Your task to perform on an android device: Open accessibility settings Image 0: 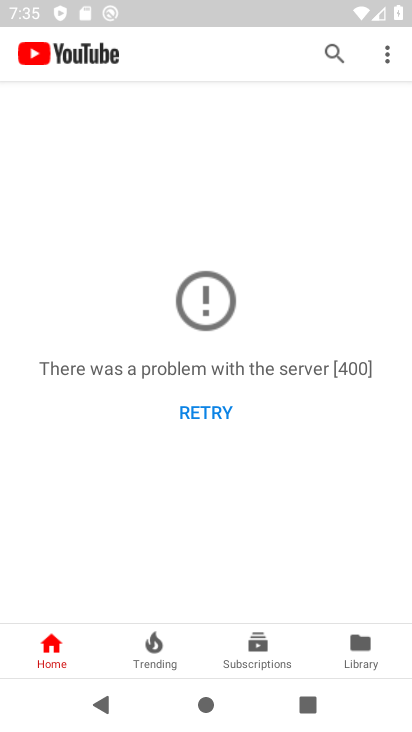
Step 0: press home button
Your task to perform on an android device: Open accessibility settings Image 1: 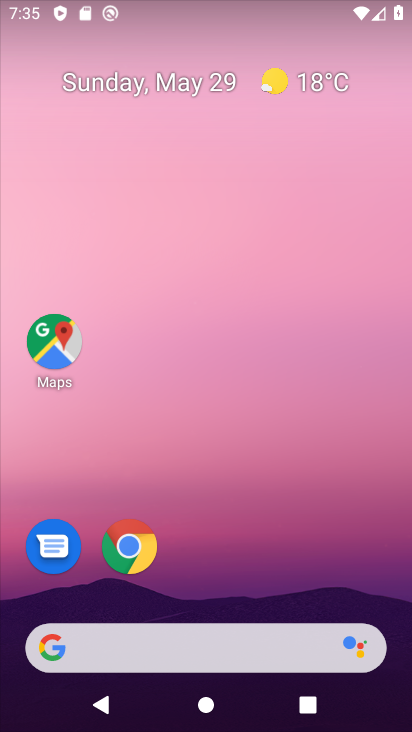
Step 1: drag from (144, 634) to (314, 149)
Your task to perform on an android device: Open accessibility settings Image 2: 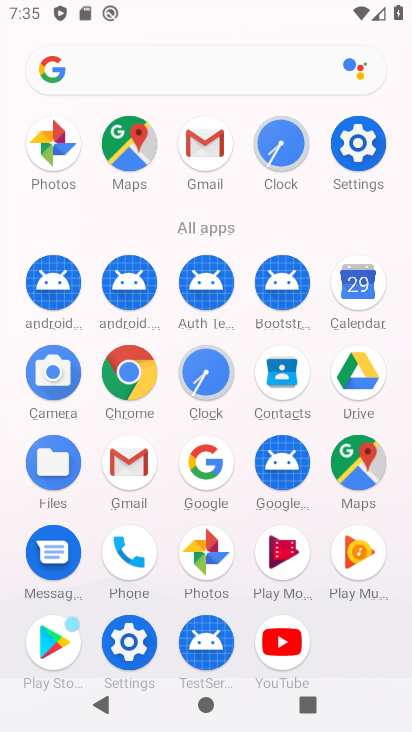
Step 2: click (133, 648)
Your task to perform on an android device: Open accessibility settings Image 3: 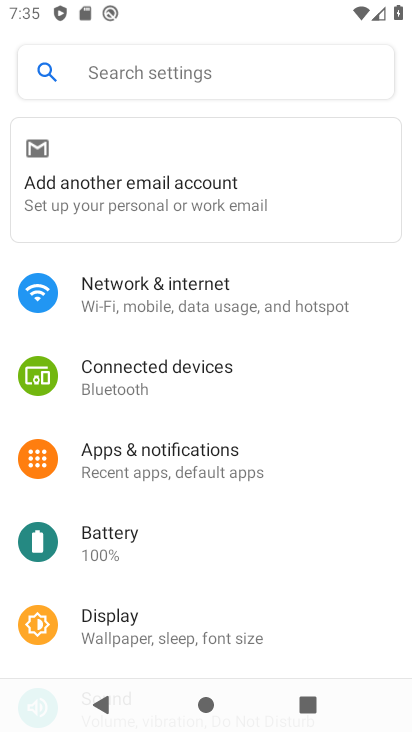
Step 3: drag from (288, 675) to (410, 288)
Your task to perform on an android device: Open accessibility settings Image 4: 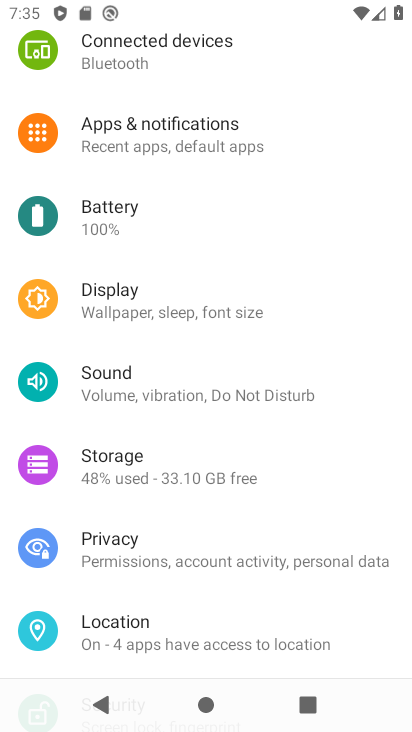
Step 4: drag from (166, 623) to (308, 221)
Your task to perform on an android device: Open accessibility settings Image 5: 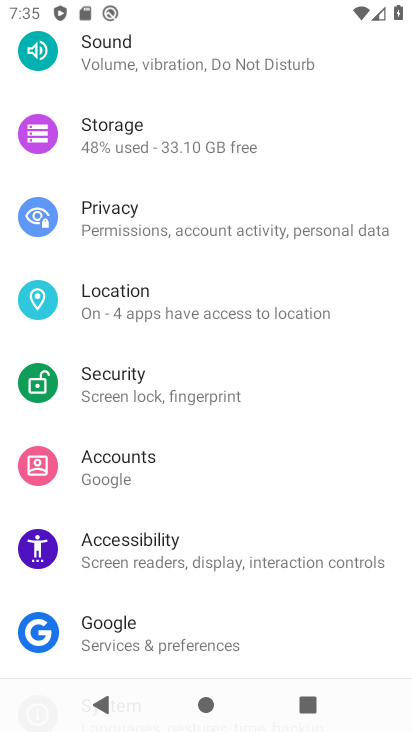
Step 5: drag from (166, 576) to (252, 291)
Your task to perform on an android device: Open accessibility settings Image 6: 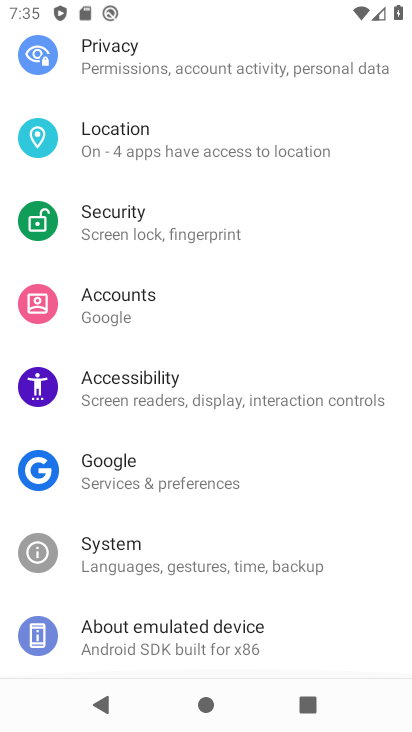
Step 6: click (180, 377)
Your task to perform on an android device: Open accessibility settings Image 7: 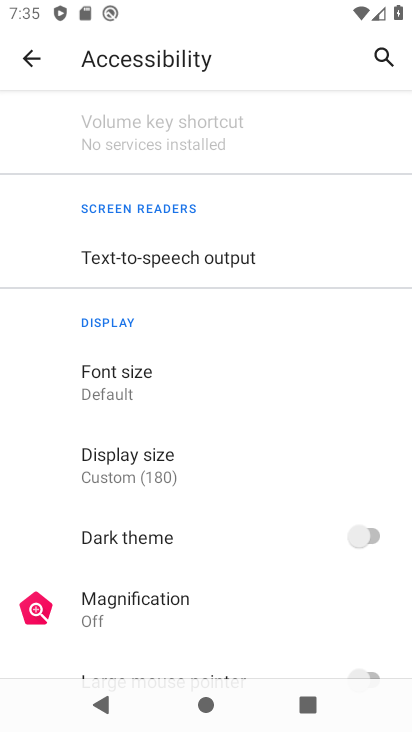
Step 7: task complete